Your task to perform on an android device: turn on javascript in the chrome app Image 0: 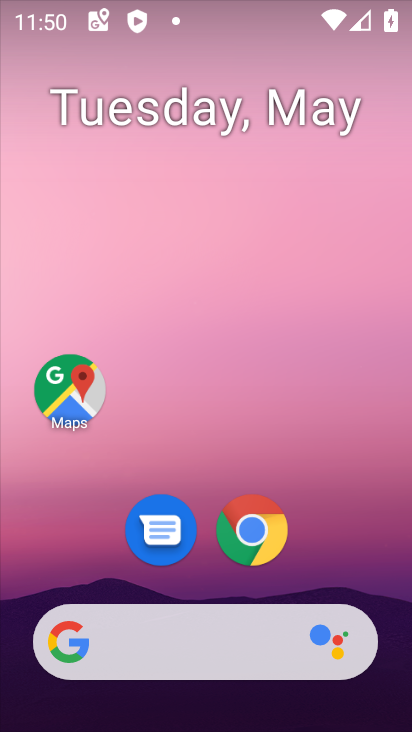
Step 0: click (252, 528)
Your task to perform on an android device: turn on javascript in the chrome app Image 1: 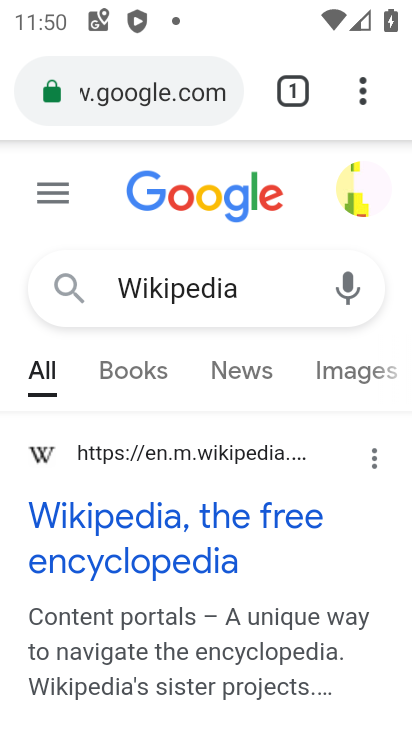
Step 1: click (361, 89)
Your task to perform on an android device: turn on javascript in the chrome app Image 2: 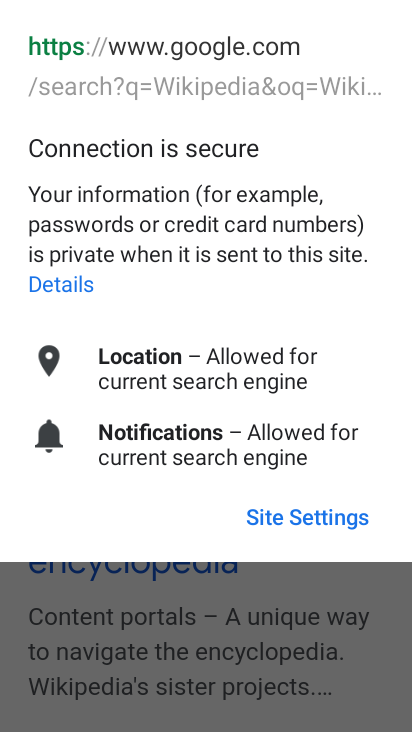
Step 2: click (333, 586)
Your task to perform on an android device: turn on javascript in the chrome app Image 3: 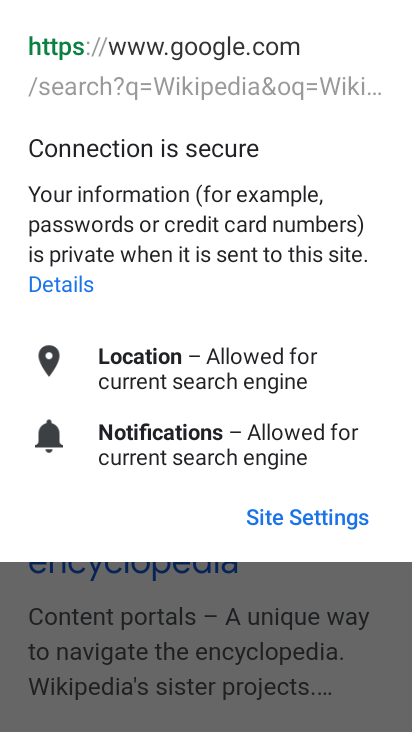
Step 3: click (311, 572)
Your task to perform on an android device: turn on javascript in the chrome app Image 4: 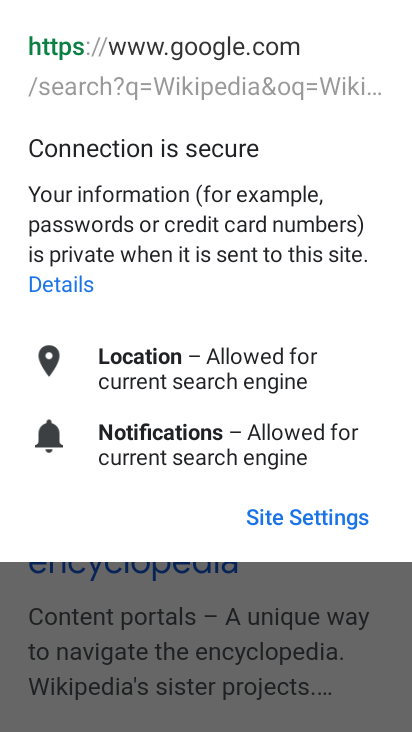
Step 4: click (297, 584)
Your task to perform on an android device: turn on javascript in the chrome app Image 5: 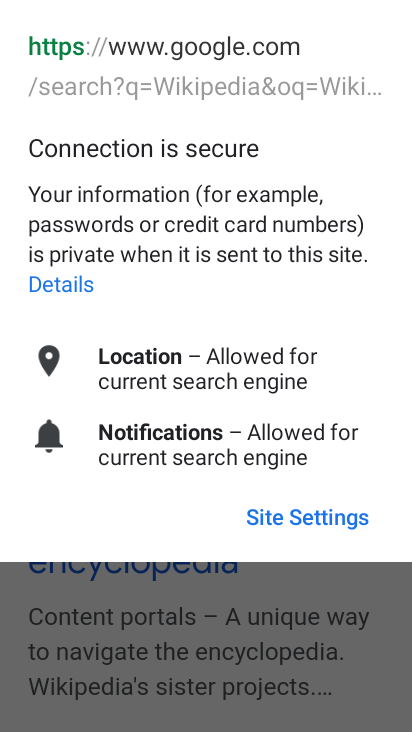
Step 5: click (322, 575)
Your task to perform on an android device: turn on javascript in the chrome app Image 6: 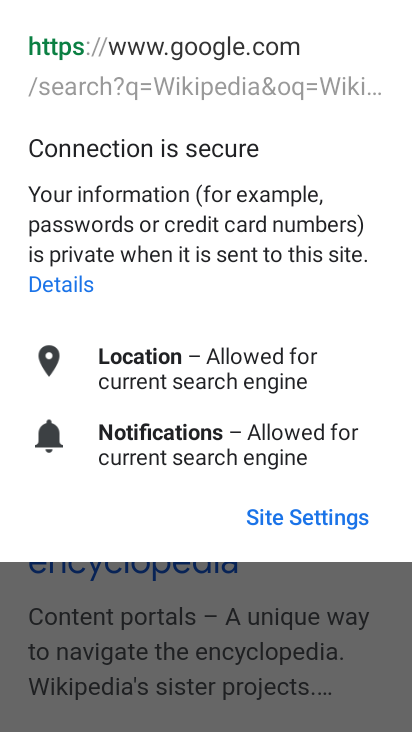
Step 6: drag from (351, 585) to (396, 145)
Your task to perform on an android device: turn on javascript in the chrome app Image 7: 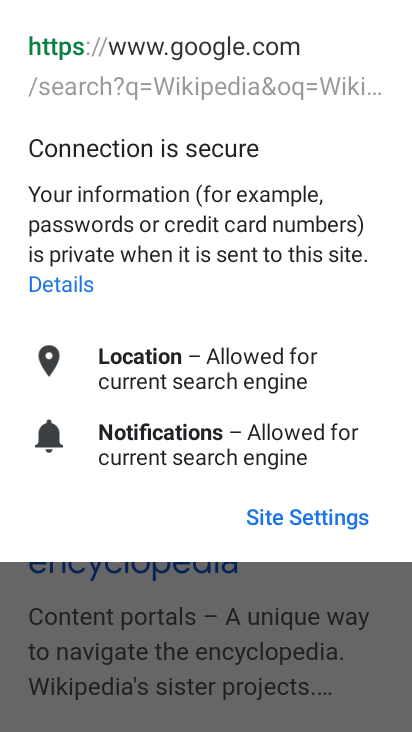
Step 7: click (300, 577)
Your task to perform on an android device: turn on javascript in the chrome app Image 8: 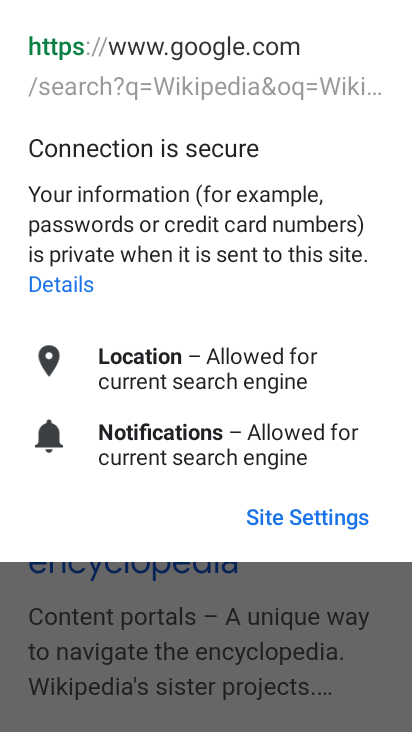
Step 8: press back button
Your task to perform on an android device: turn on javascript in the chrome app Image 9: 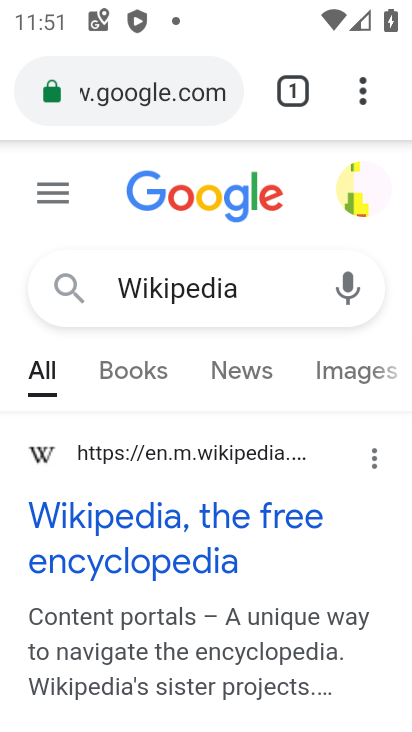
Step 9: click (366, 93)
Your task to perform on an android device: turn on javascript in the chrome app Image 10: 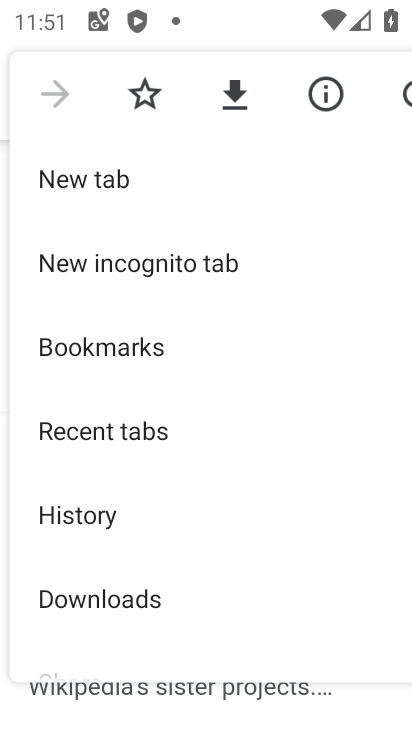
Step 10: drag from (250, 541) to (246, 141)
Your task to perform on an android device: turn on javascript in the chrome app Image 11: 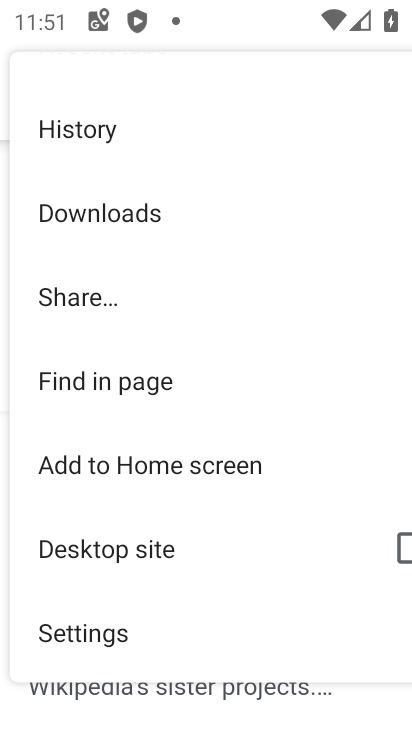
Step 11: click (96, 629)
Your task to perform on an android device: turn on javascript in the chrome app Image 12: 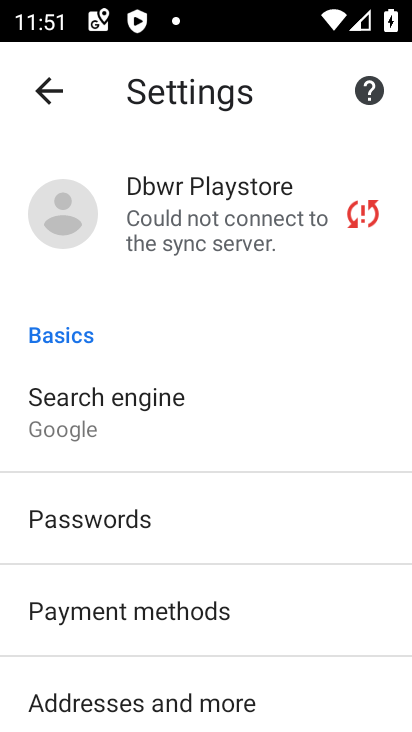
Step 12: drag from (139, 647) to (152, 263)
Your task to perform on an android device: turn on javascript in the chrome app Image 13: 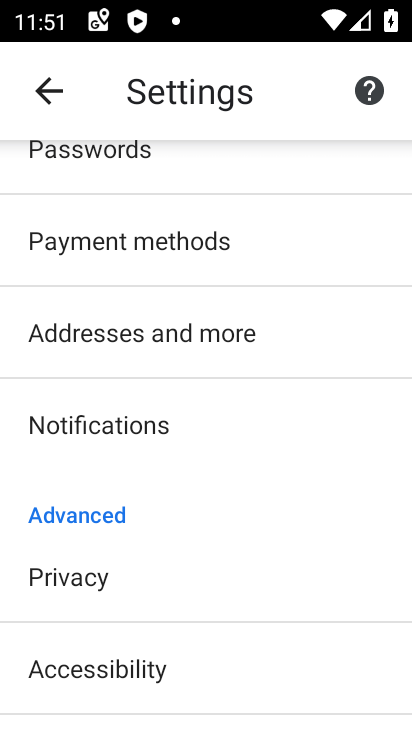
Step 13: drag from (153, 602) to (192, 292)
Your task to perform on an android device: turn on javascript in the chrome app Image 14: 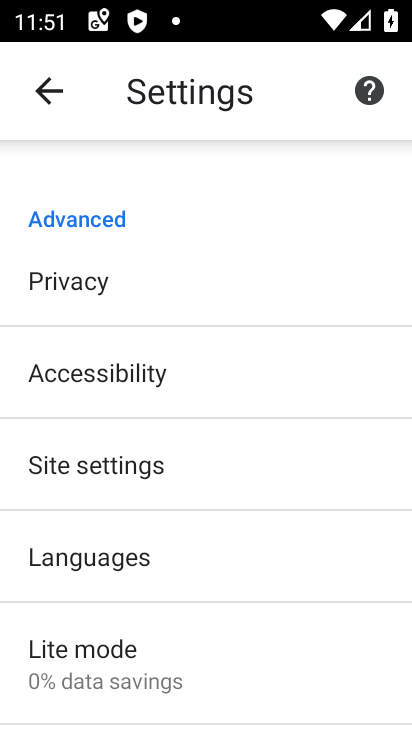
Step 14: click (115, 464)
Your task to perform on an android device: turn on javascript in the chrome app Image 15: 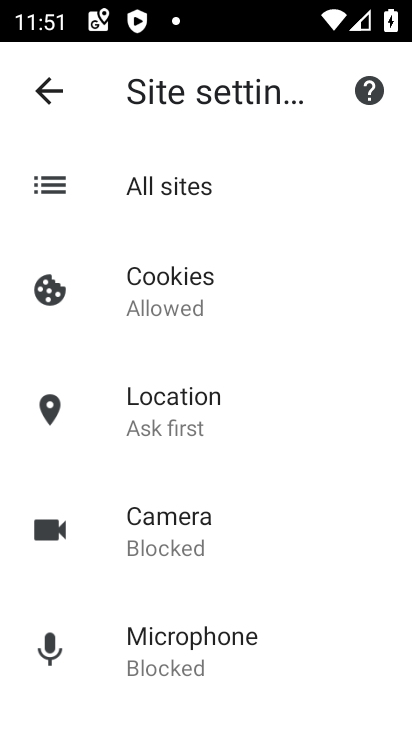
Step 15: task complete